Your task to perform on an android device: Turn off the flashlight Image 0: 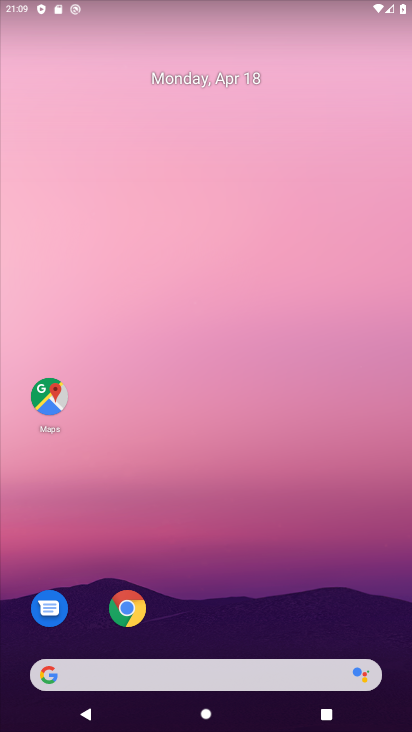
Step 0: drag from (229, 572) to (223, 119)
Your task to perform on an android device: Turn off the flashlight Image 1: 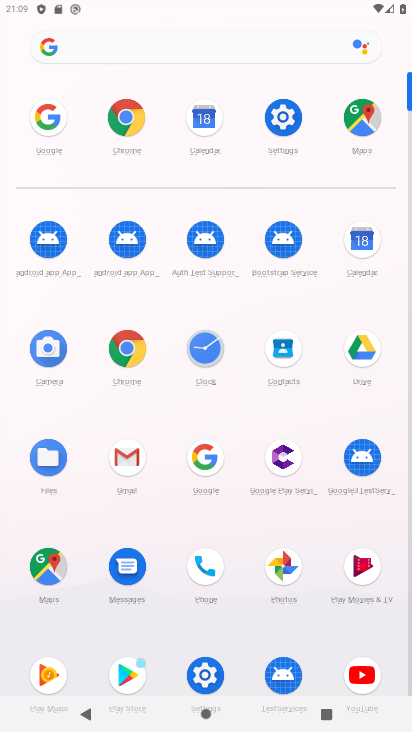
Step 1: click (281, 115)
Your task to perform on an android device: Turn off the flashlight Image 2: 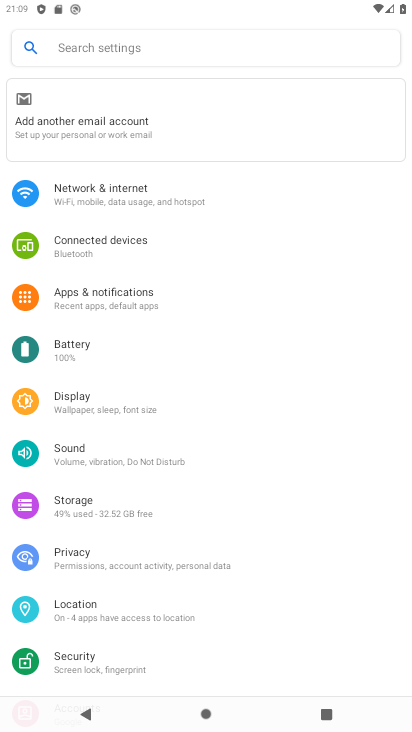
Step 2: click (202, 46)
Your task to perform on an android device: Turn off the flashlight Image 3: 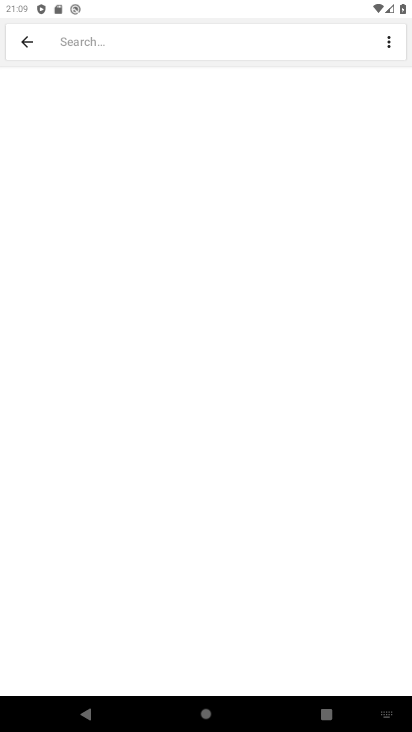
Step 3: type "flash"
Your task to perform on an android device: Turn off the flashlight Image 4: 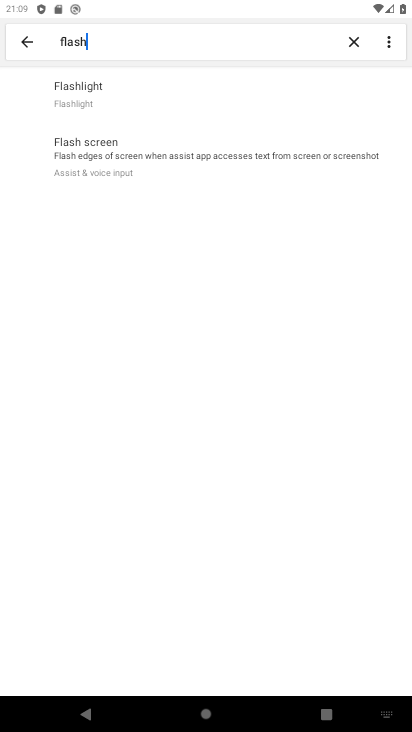
Step 4: click (98, 95)
Your task to perform on an android device: Turn off the flashlight Image 5: 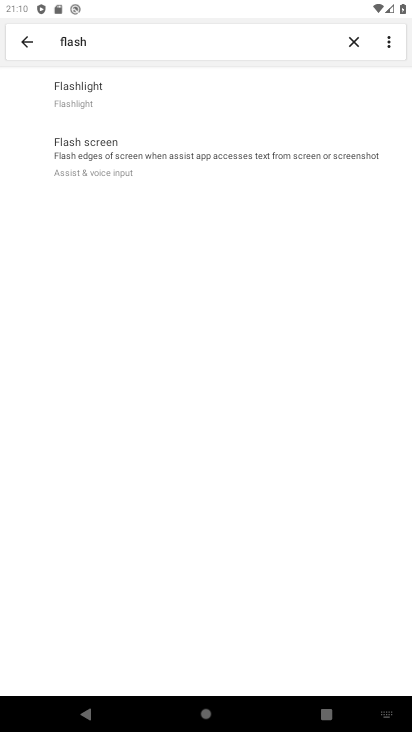
Step 5: task complete